Your task to perform on an android device: Open Google Maps Image 0: 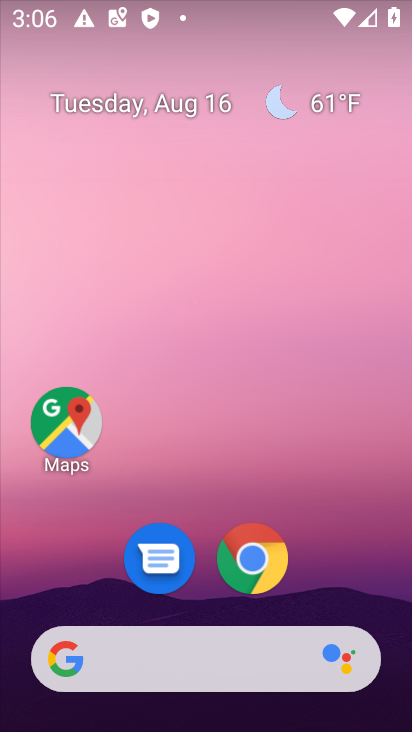
Step 0: click (69, 426)
Your task to perform on an android device: Open Google Maps Image 1: 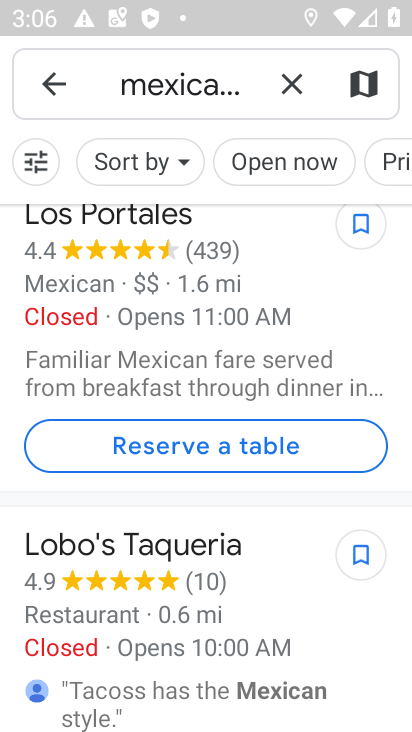
Step 1: click (292, 82)
Your task to perform on an android device: Open Google Maps Image 2: 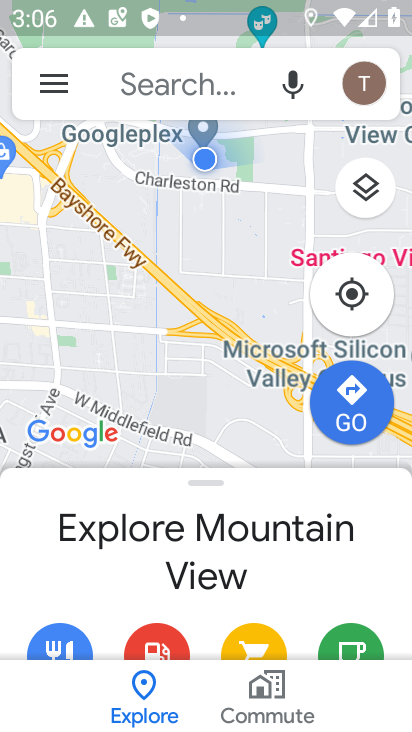
Step 2: task complete